Your task to perform on an android device: clear history in the chrome app Image 0: 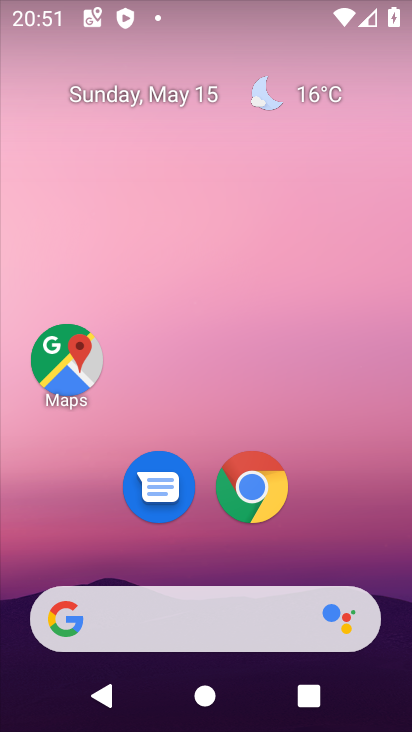
Step 0: click (251, 489)
Your task to perform on an android device: clear history in the chrome app Image 1: 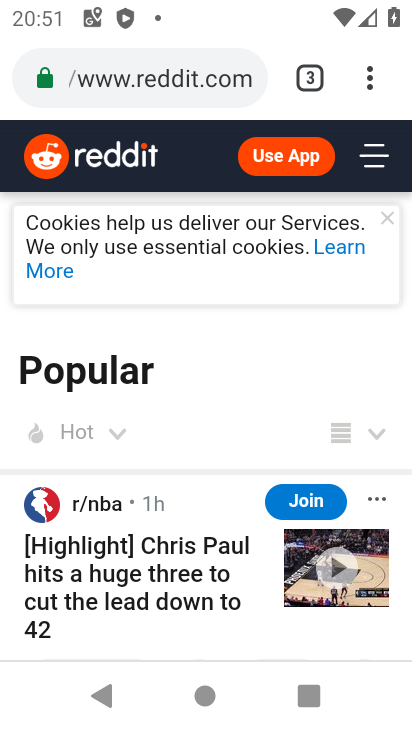
Step 1: click (371, 74)
Your task to perform on an android device: clear history in the chrome app Image 2: 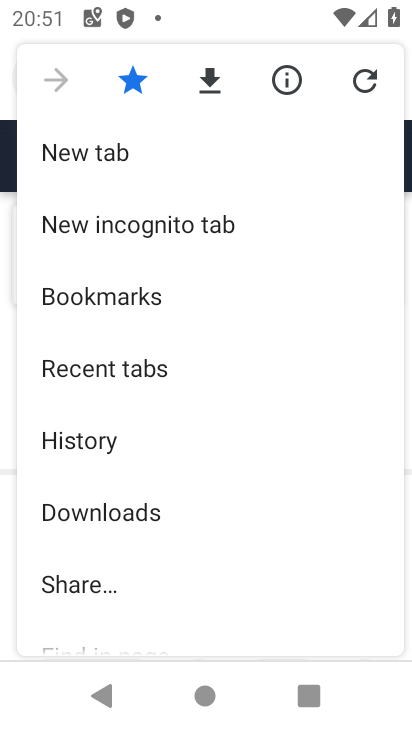
Step 2: drag from (263, 614) to (267, 398)
Your task to perform on an android device: clear history in the chrome app Image 3: 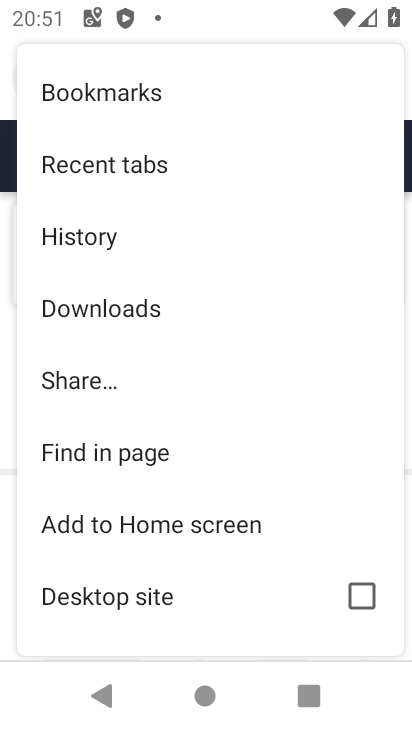
Step 3: drag from (260, 608) to (272, 379)
Your task to perform on an android device: clear history in the chrome app Image 4: 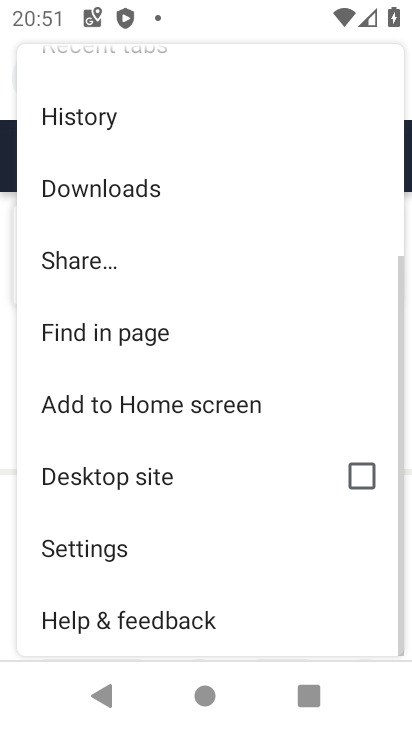
Step 4: click (78, 542)
Your task to perform on an android device: clear history in the chrome app Image 5: 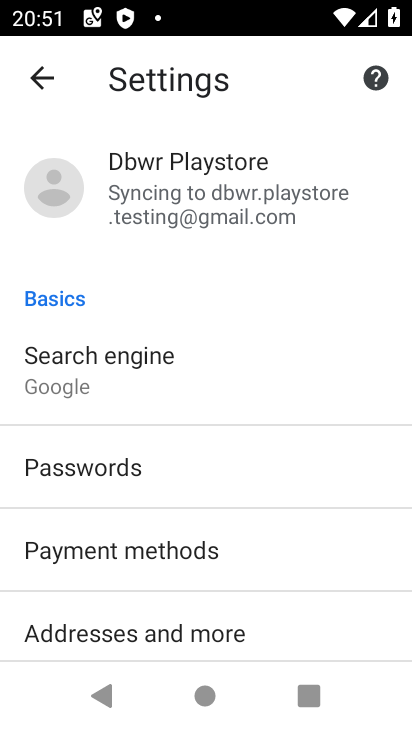
Step 5: press back button
Your task to perform on an android device: clear history in the chrome app Image 6: 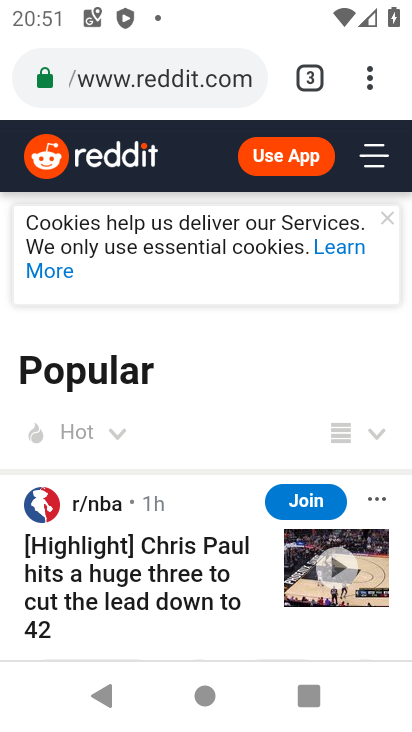
Step 6: click (367, 72)
Your task to perform on an android device: clear history in the chrome app Image 7: 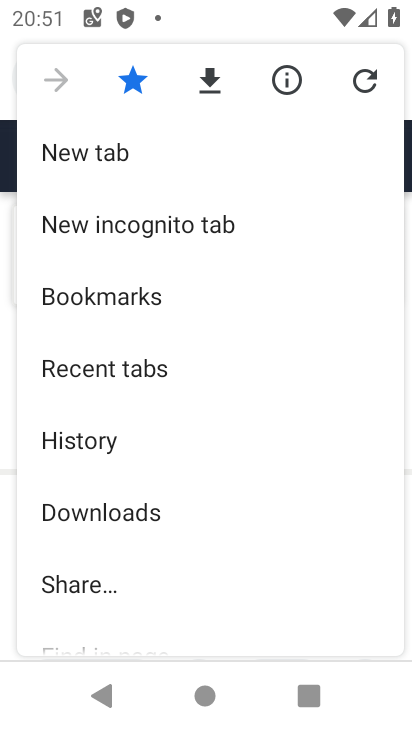
Step 7: click (57, 436)
Your task to perform on an android device: clear history in the chrome app Image 8: 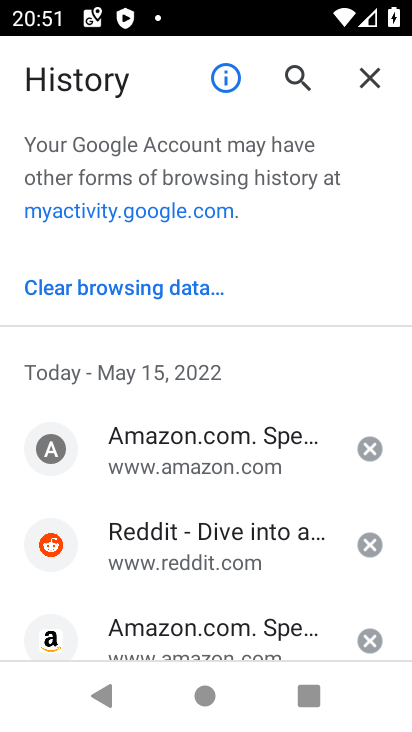
Step 8: click (109, 281)
Your task to perform on an android device: clear history in the chrome app Image 9: 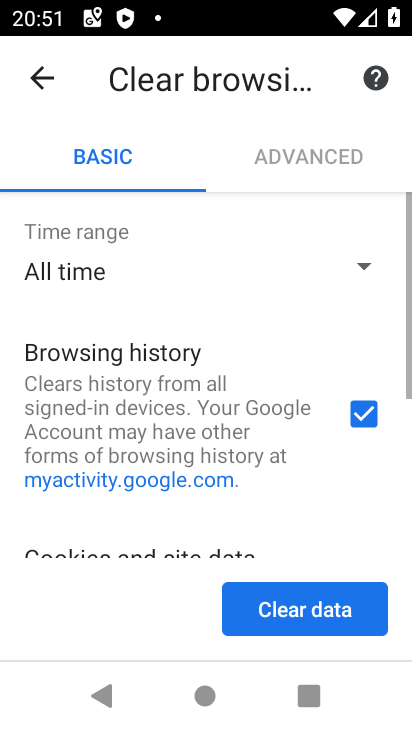
Step 9: click (291, 608)
Your task to perform on an android device: clear history in the chrome app Image 10: 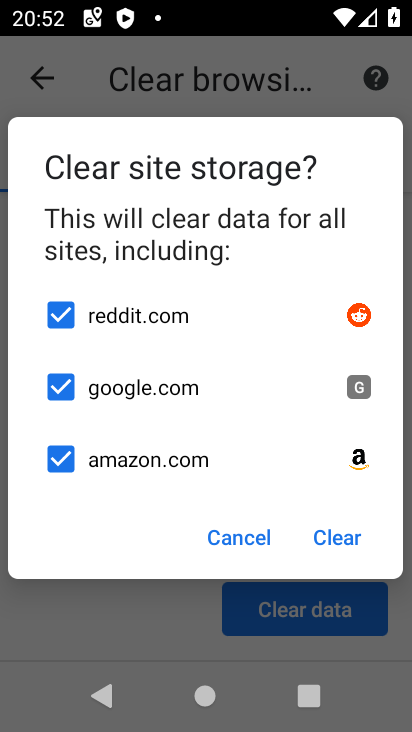
Step 10: click (323, 536)
Your task to perform on an android device: clear history in the chrome app Image 11: 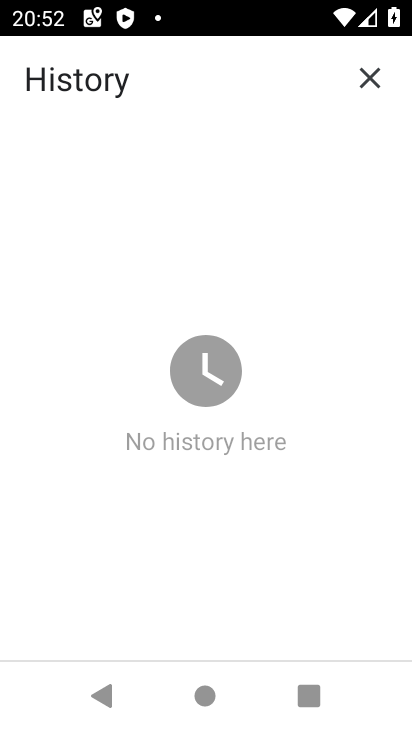
Step 11: task complete